Your task to perform on an android device: open app "AliExpress" Image 0: 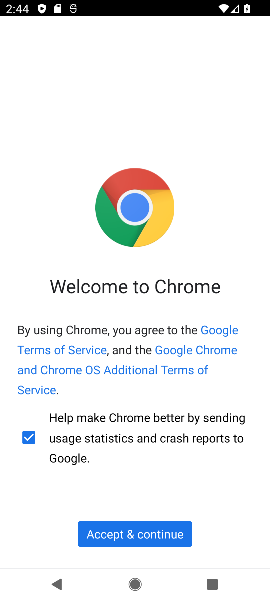
Step 0: press home button
Your task to perform on an android device: open app "AliExpress" Image 1: 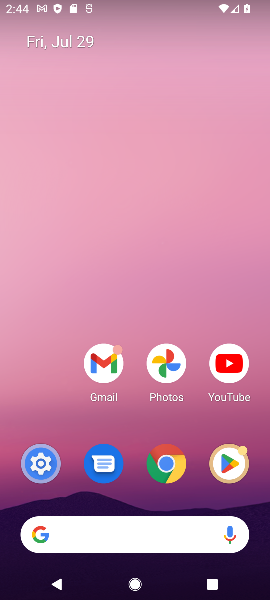
Step 1: drag from (109, 532) to (175, 138)
Your task to perform on an android device: open app "AliExpress" Image 2: 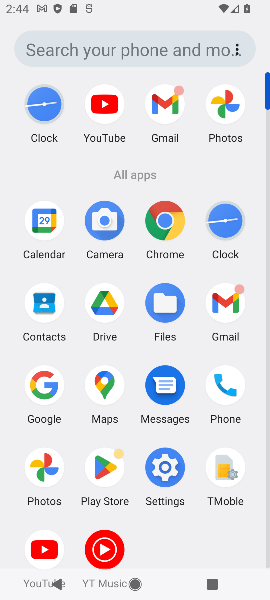
Step 2: click (108, 470)
Your task to perform on an android device: open app "AliExpress" Image 3: 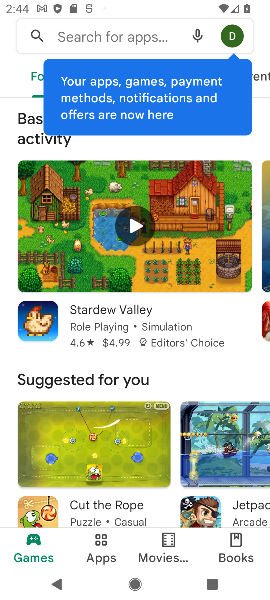
Step 3: click (153, 28)
Your task to perform on an android device: open app "AliExpress" Image 4: 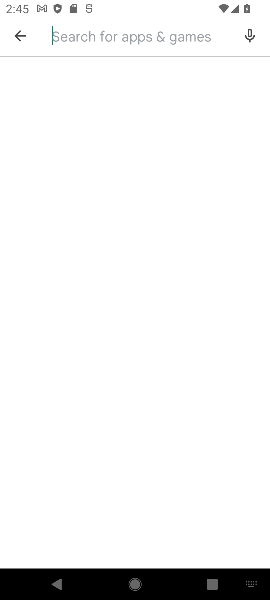
Step 4: type "AliExpress"
Your task to perform on an android device: open app "AliExpress" Image 5: 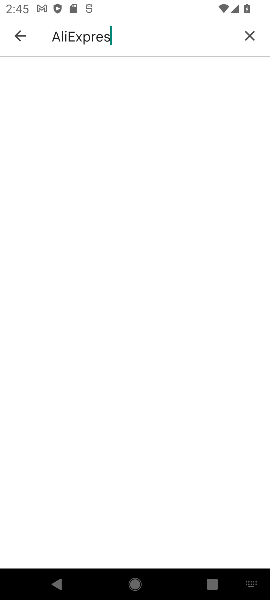
Step 5: type ""
Your task to perform on an android device: open app "AliExpress" Image 6: 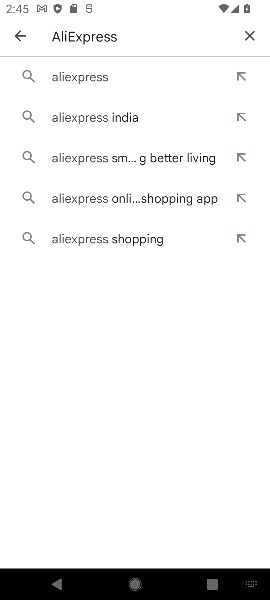
Step 6: click (85, 78)
Your task to perform on an android device: open app "AliExpress" Image 7: 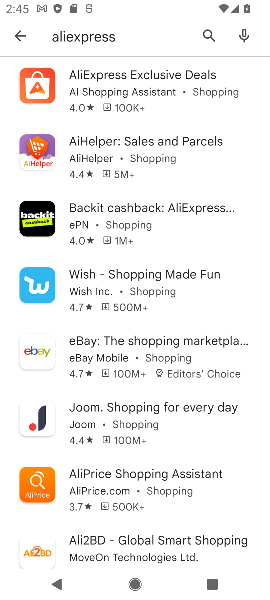
Step 7: drag from (154, 446) to (169, 347)
Your task to perform on an android device: open app "AliExpress" Image 8: 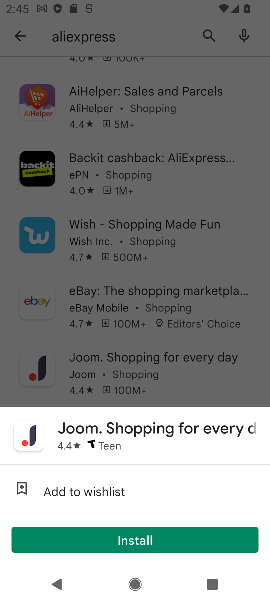
Step 8: drag from (127, 332) to (143, 205)
Your task to perform on an android device: open app "AliExpress" Image 9: 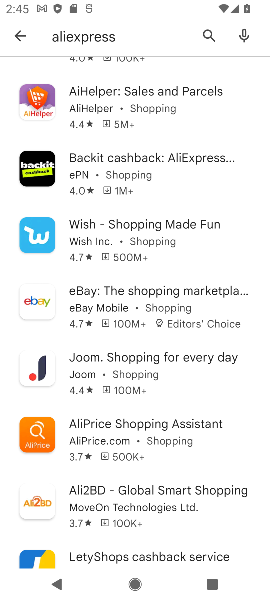
Step 9: drag from (173, 126) to (156, 339)
Your task to perform on an android device: open app "AliExpress" Image 10: 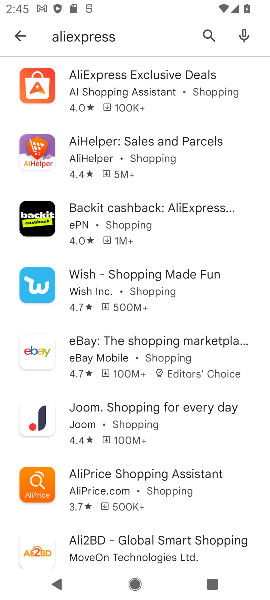
Step 10: drag from (143, 510) to (217, 276)
Your task to perform on an android device: open app "AliExpress" Image 11: 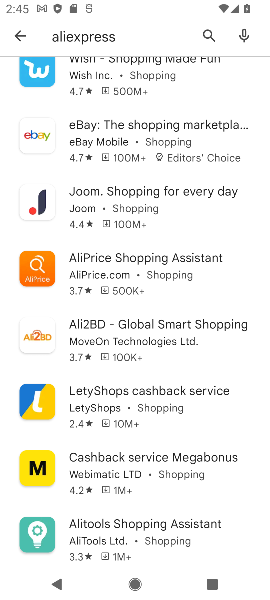
Step 11: drag from (201, 147) to (182, 424)
Your task to perform on an android device: open app "AliExpress" Image 12: 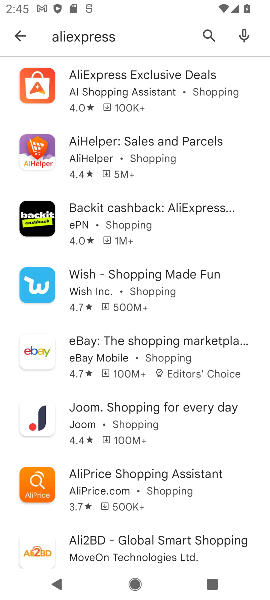
Step 12: click (132, 74)
Your task to perform on an android device: open app "AliExpress" Image 13: 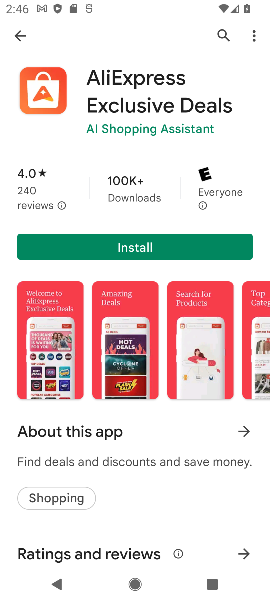
Step 13: task complete